Your task to perform on an android device: Search for Italian restaurants on Maps Image 0: 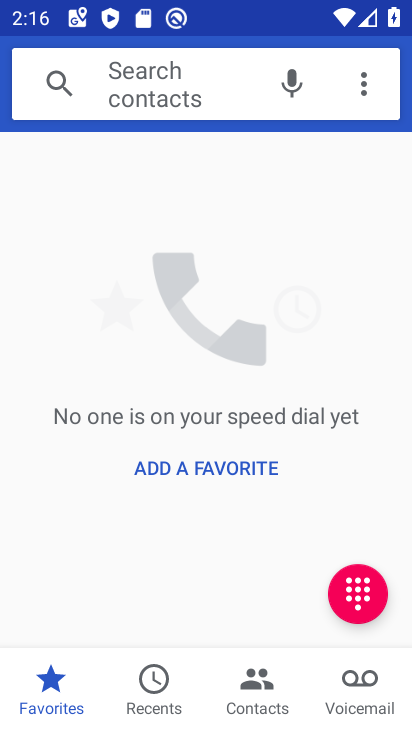
Step 0: press home button
Your task to perform on an android device: Search for Italian restaurants on Maps Image 1: 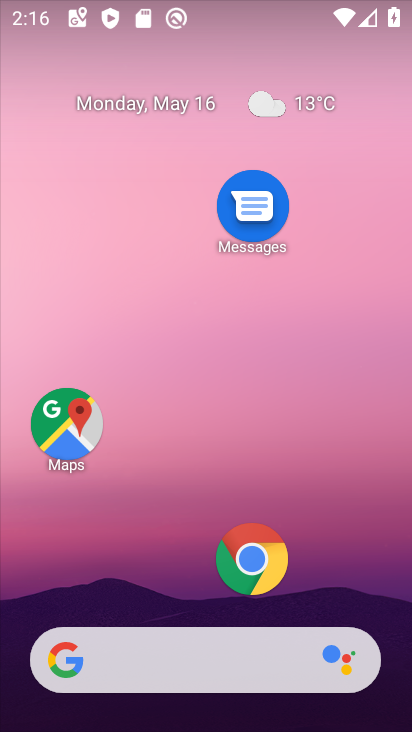
Step 1: drag from (161, 603) to (195, 142)
Your task to perform on an android device: Search for Italian restaurants on Maps Image 2: 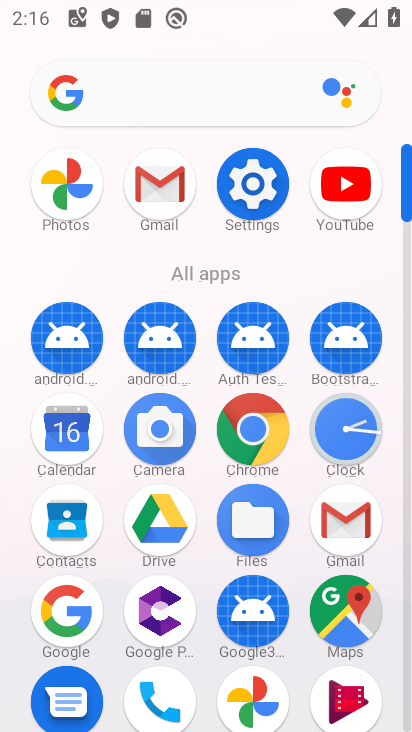
Step 2: click (344, 613)
Your task to perform on an android device: Search for Italian restaurants on Maps Image 3: 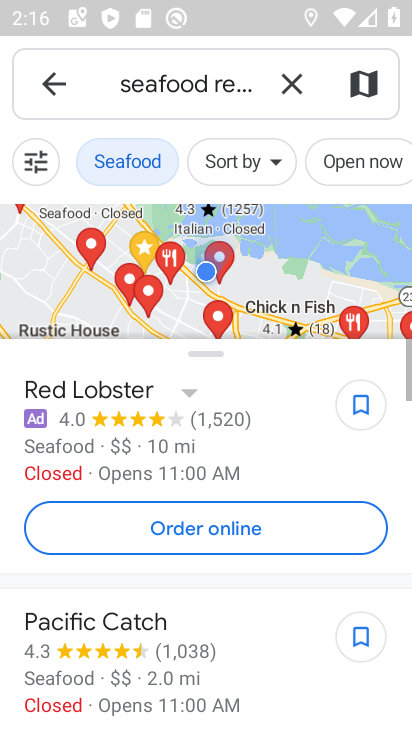
Step 3: click (289, 86)
Your task to perform on an android device: Search for Italian restaurants on Maps Image 4: 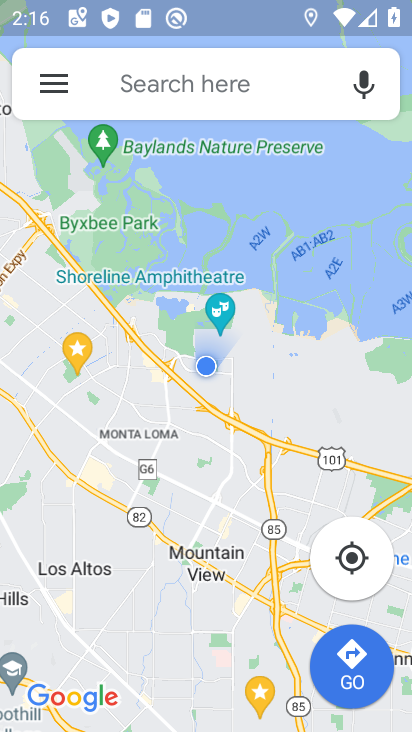
Step 4: click (186, 79)
Your task to perform on an android device: Search for Italian restaurants on Maps Image 5: 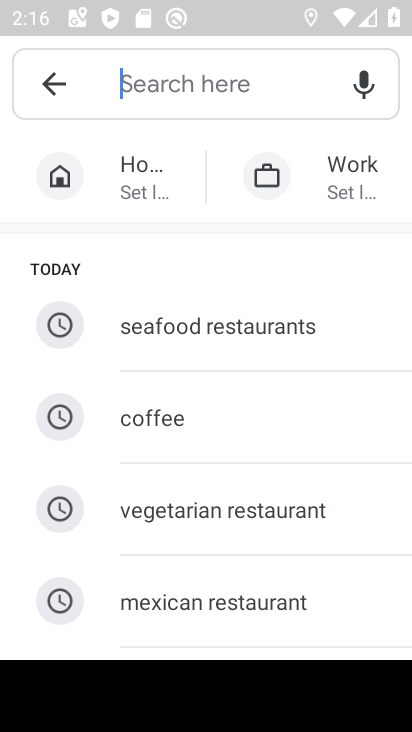
Step 5: type "Italian restaurants"
Your task to perform on an android device: Search for Italian restaurants on Maps Image 6: 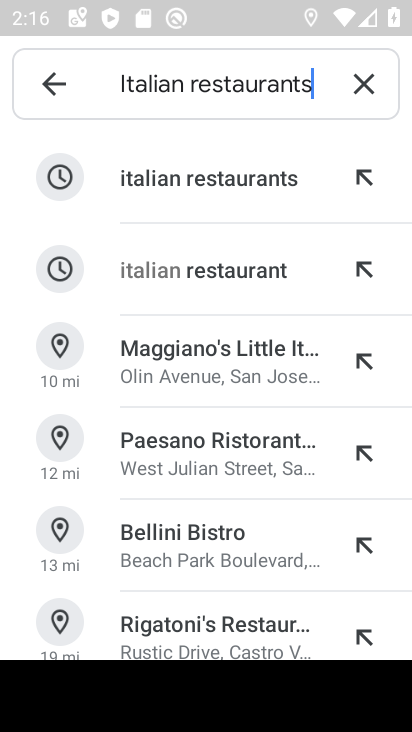
Step 6: click (225, 187)
Your task to perform on an android device: Search for Italian restaurants on Maps Image 7: 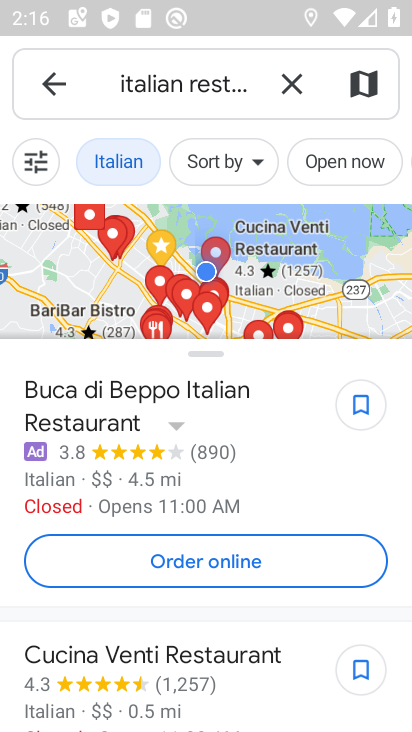
Step 7: task complete